Your task to perform on an android device: check android version Image 0: 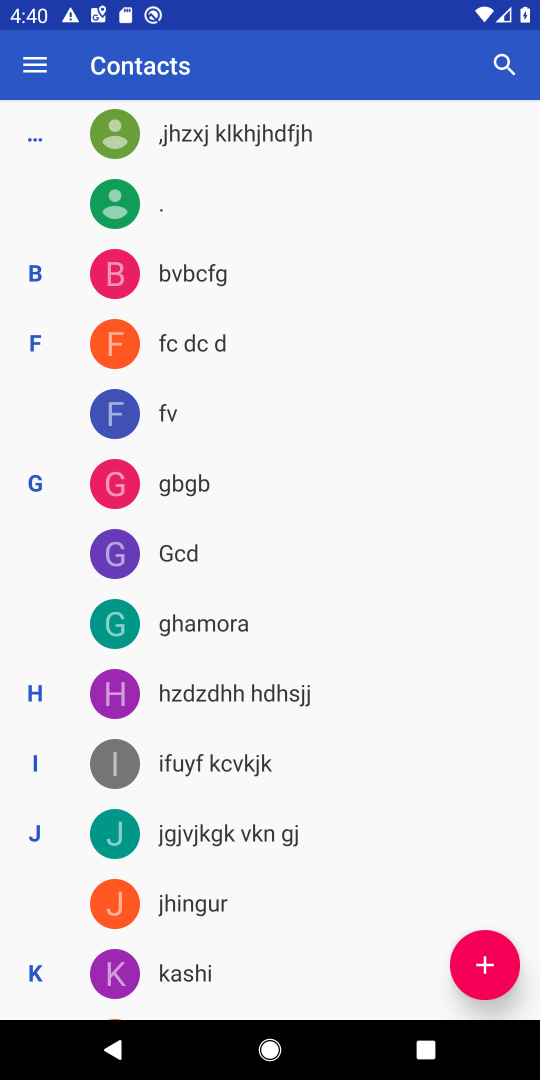
Step 0: press back button
Your task to perform on an android device: check android version Image 1: 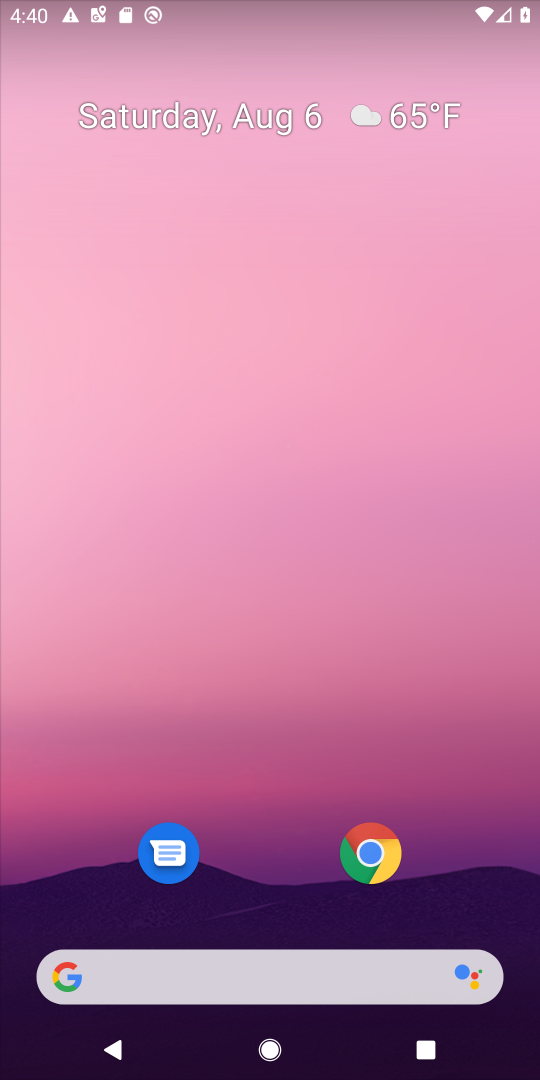
Step 1: drag from (234, 810) to (294, 303)
Your task to perform on an android device: check android version Image 2: 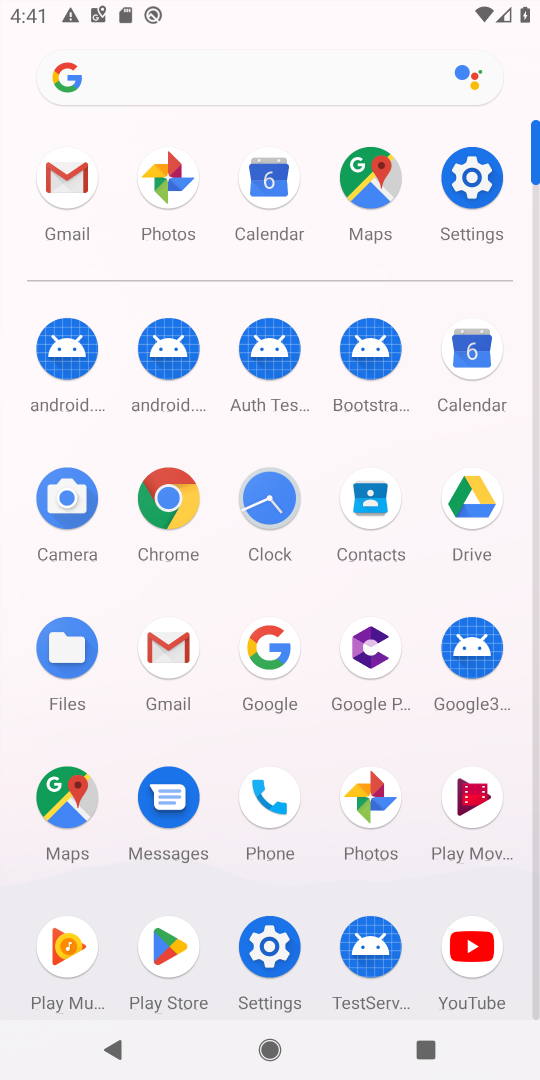
Step 2: click (490, 190)
Your task to perform on an android device: check android version Image 3: 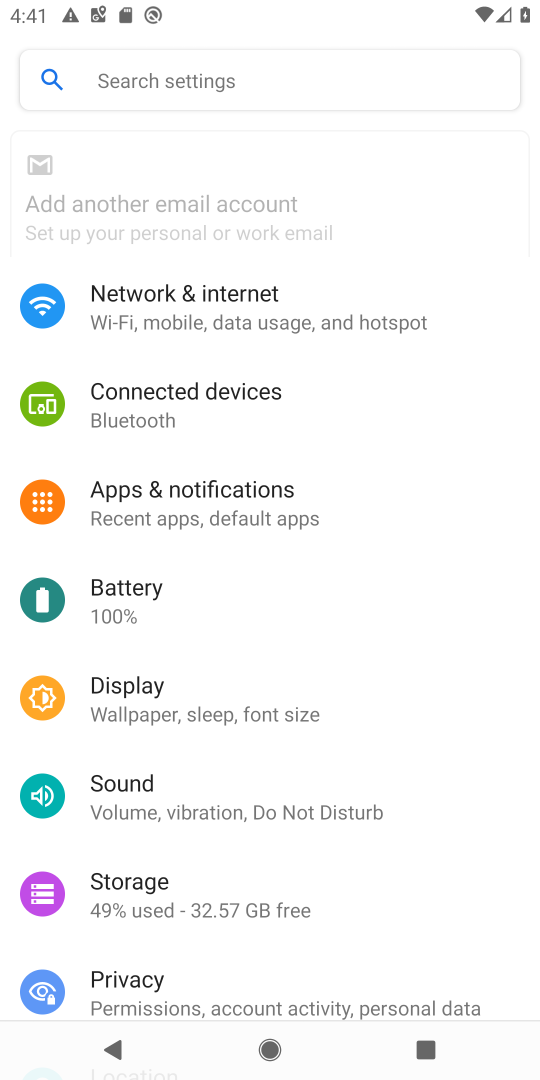
Step 3: drag from (150, 909) to (235, 176)
Your task to perform on an android device: check android version Image 4: 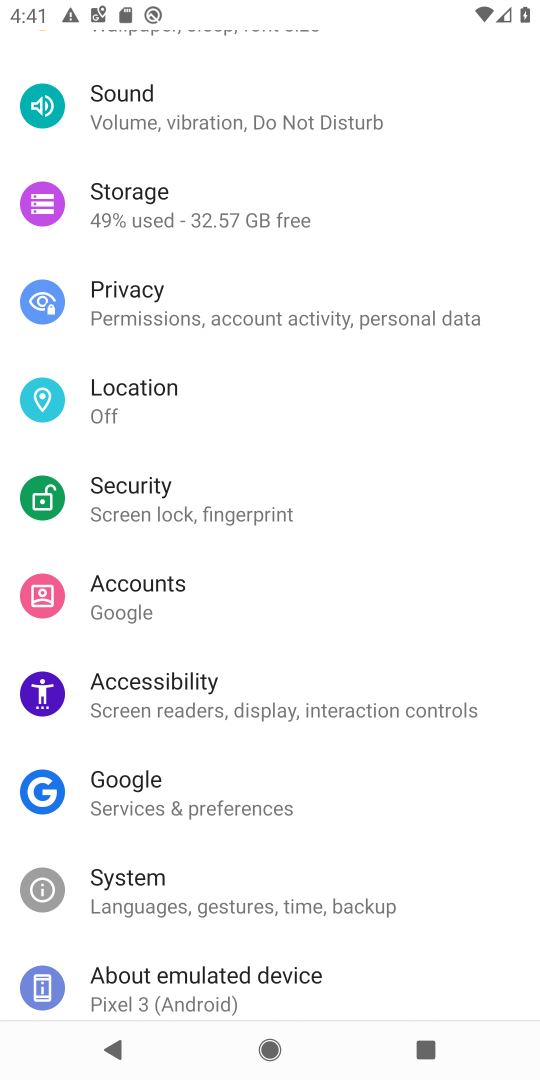
Step 4: click (146, 971)
Your task to perform on an android device: check android version Image 5: 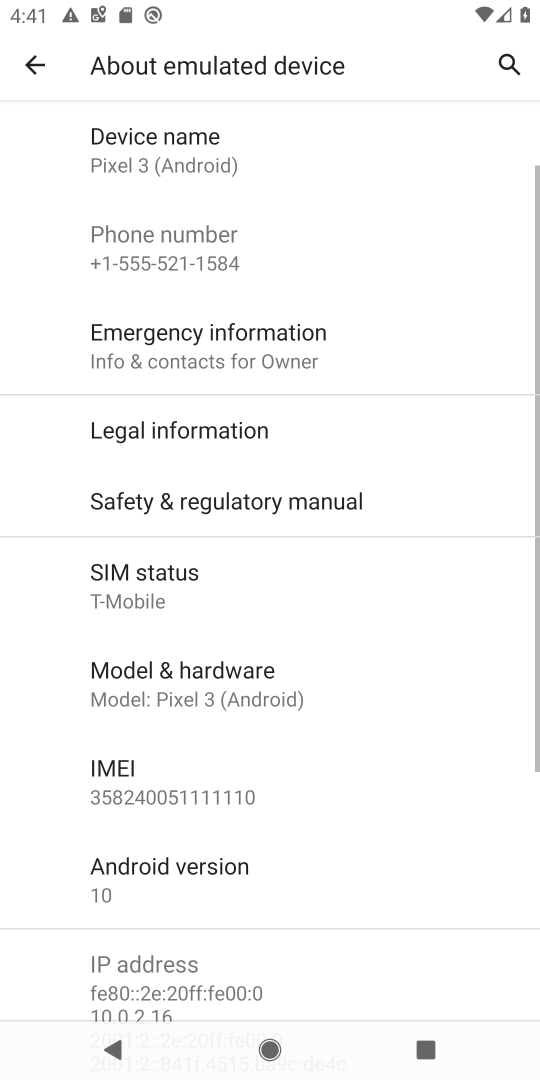
Step 5: click (146, 873)
Your task to perform on an android device: check android version Image 6: 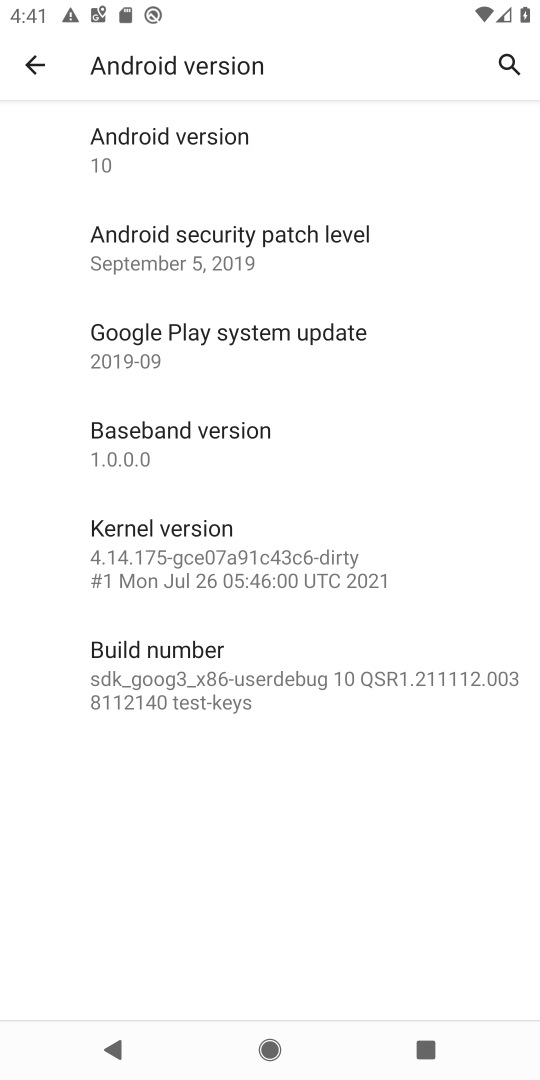
Step 6: task complete